Your task to perform on an android device: turn off priority inbox in the gmail app Image 0: 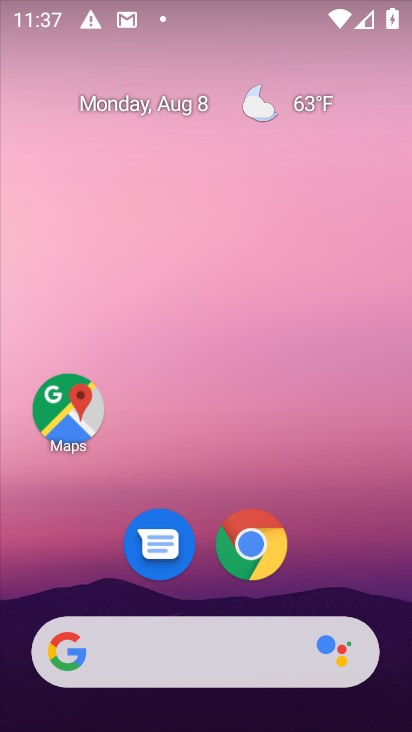
Step 0: drag from (209, 644) to (178, 210)
Your task to perform on an android device: turn off priority inbox in the gmail app Image 1: 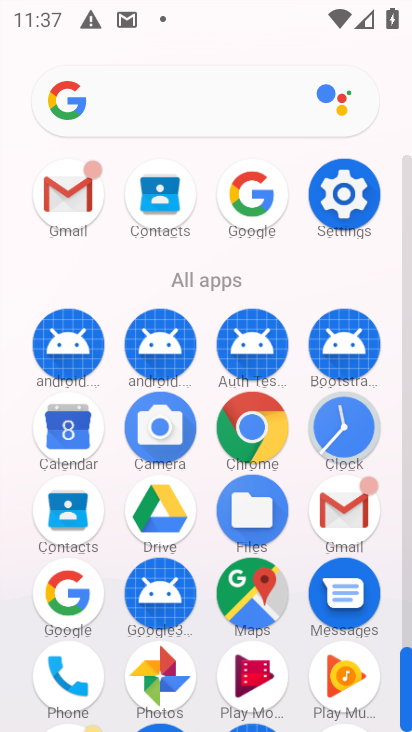
Step 1: click (71, 194)
Your task to perform on an android device: turn off priority inbox in the gmail app Image 2: 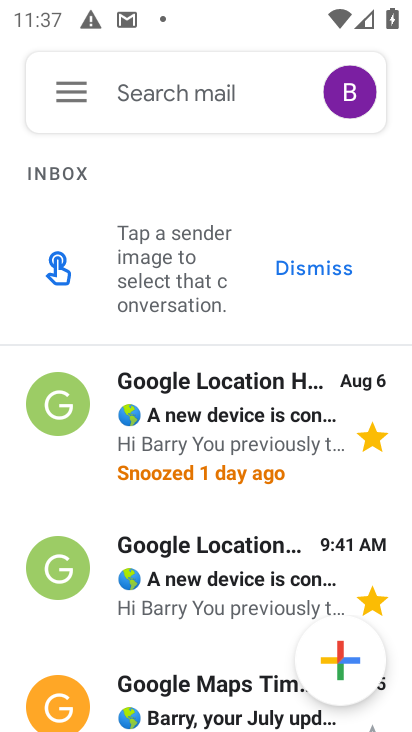
Step 2: click (73, 95)
Your task to perform on an android device: turn off priority inbox in the gmail app Image 3: 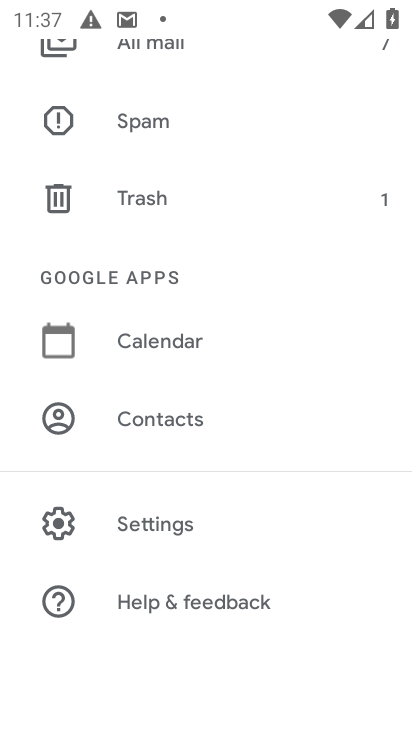
Step 3: click (170, 528)
Your task to perform on an android device: turn off priority inbox in the gmail app Image 4: 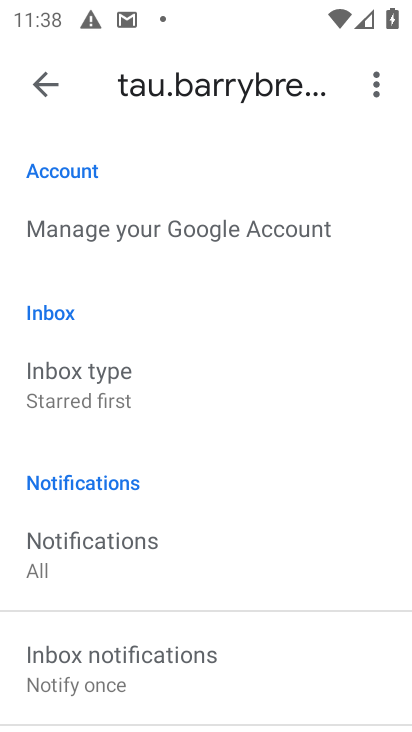
Step 4: task complete